Your task to perform on an android device: turn notification dots on Image 0: 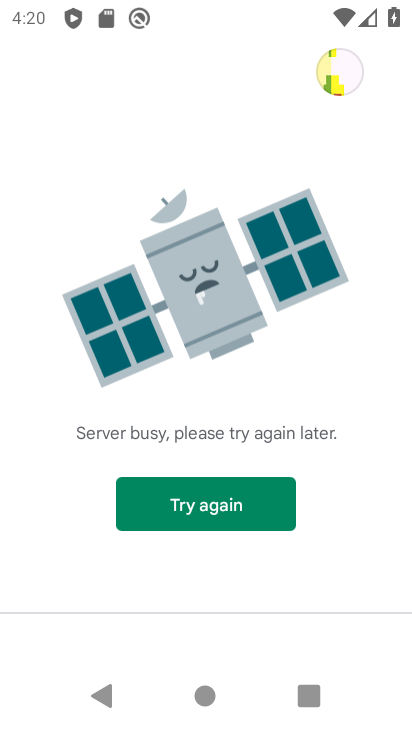
Step 0: press home button
Your task to perform on an android device: turn notification dots on Image 1: 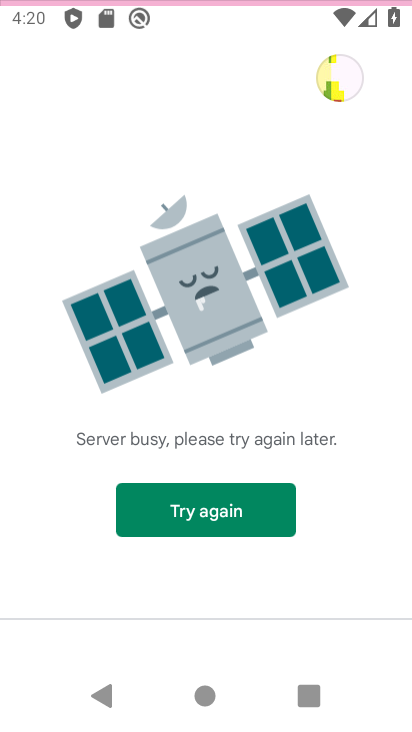
Step 1: press home button
Your task to perform on an android device: turn notification dots on Image 2: 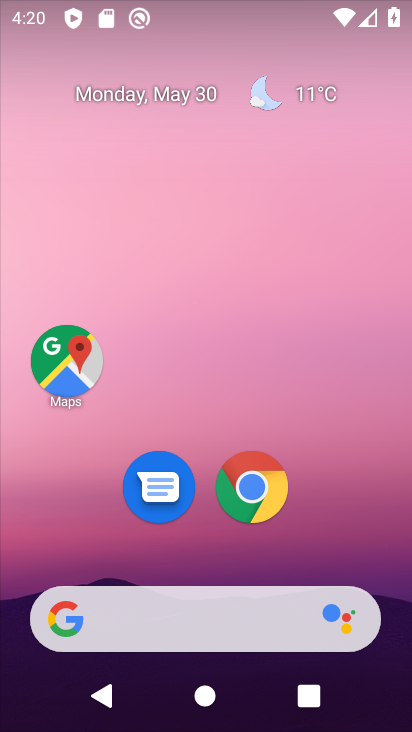
Step 2: drag from (387, 576) to (346, 193)
Your task to perform on an android device: turn notification dots on Image 3: 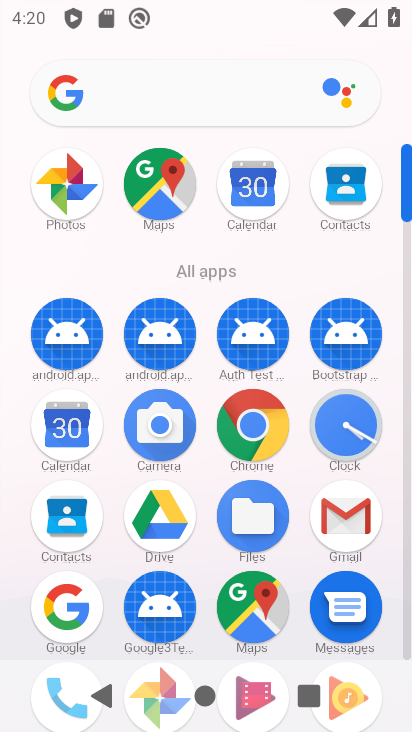
Step 3: click (406, 645)
Your task to perform on an android device: turn notification dots on Image 4: 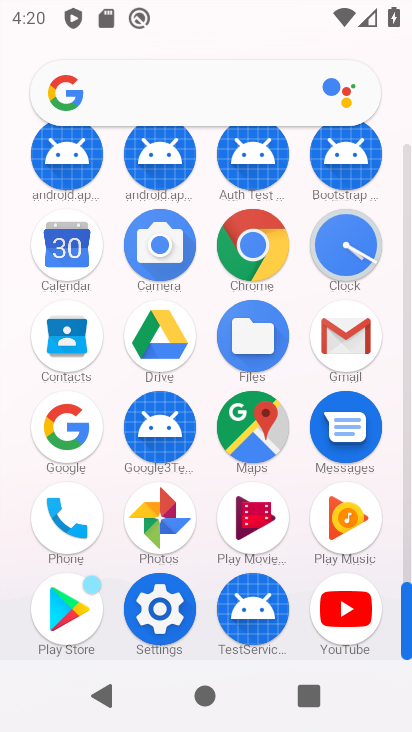
Step 4: click (406, 645)
Your task to perform on an android device: turn notification dots on Image 5: 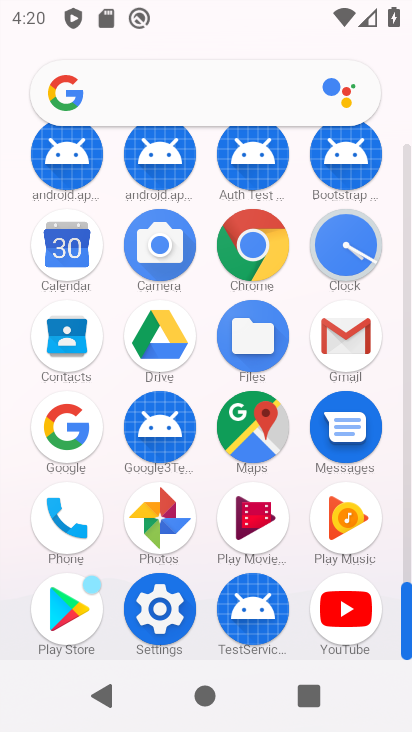
Step 5: click (161, 611)
Your task to perform on an android device: turn notification dots on Image 6: 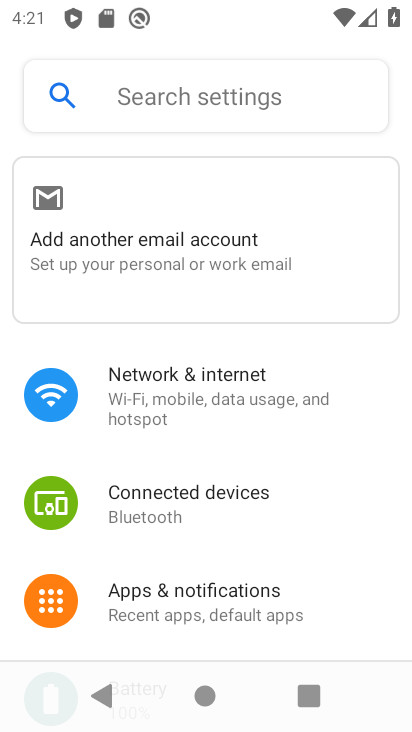
Step 6: drag from (318, 470) to (327, 277)
Your task to perform on an android device: turn notification dots on Image 7: 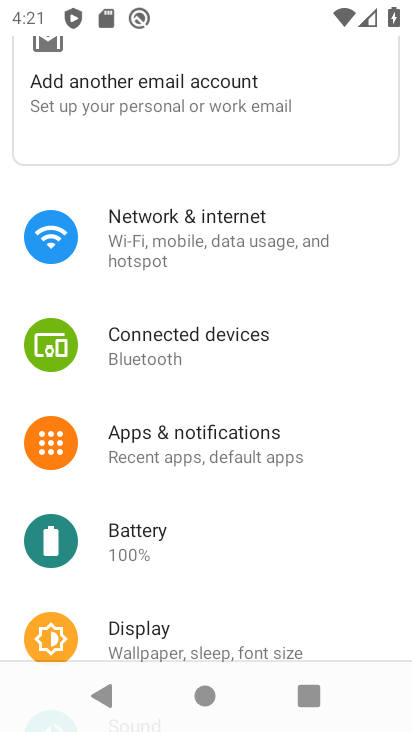
Step 7: click (165, 430)
Your task to perform on an android device: turn notification dots on Image 8: 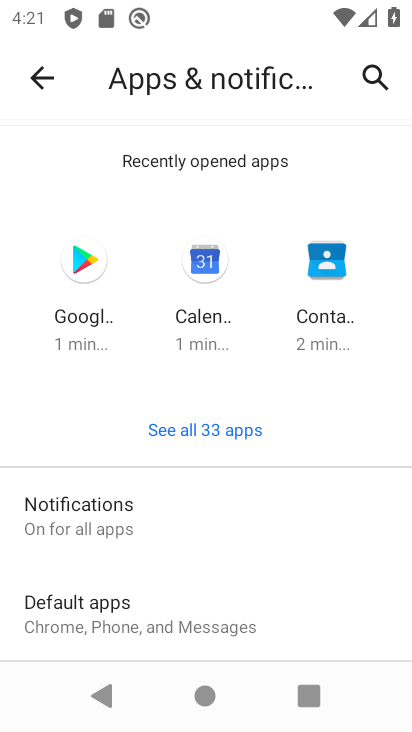
Step 8: click (98, 516)
Your task to perform on an android device: turn notification dots on Image 9: 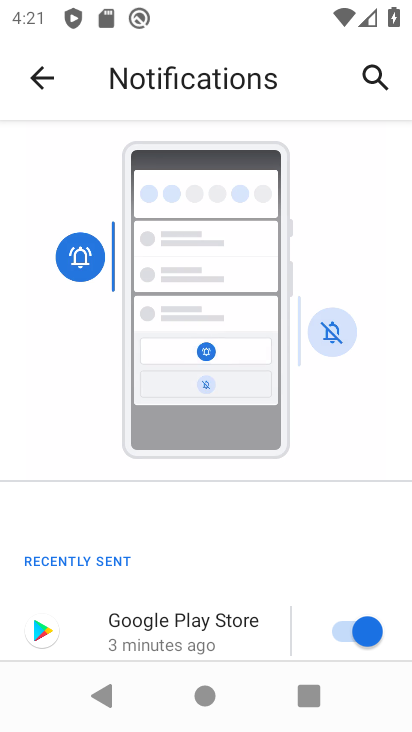
Step 9: drag from (270, 617) to (273, 160)
Your task to perform on an android device: turn notification dots on Image 10: 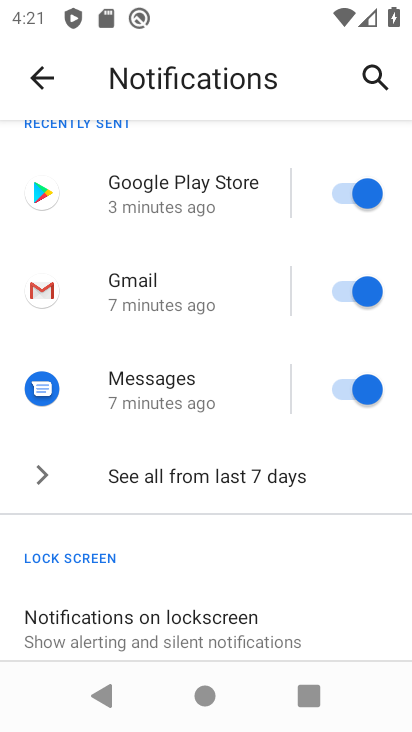
Step 10: drag from (290, 632) to (237, 178)
Your task to perform on an android device: turn notification dots on Image 11: 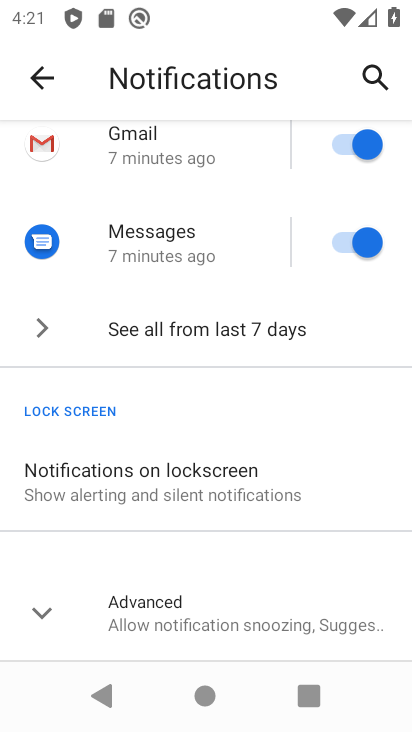
Step 11: drag from (286, 606) to (263, 252)
Your task to perform on an android device: turn notification dots on Image 12: 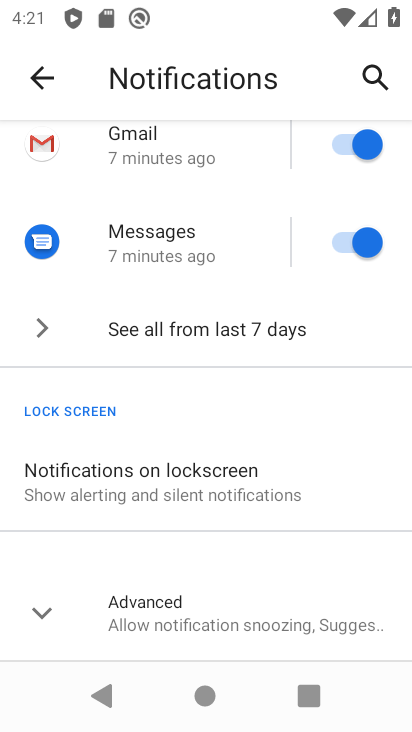
Step 12: click (36, 609)
Your task to perform on an android device: turn notification dots on Image 13: 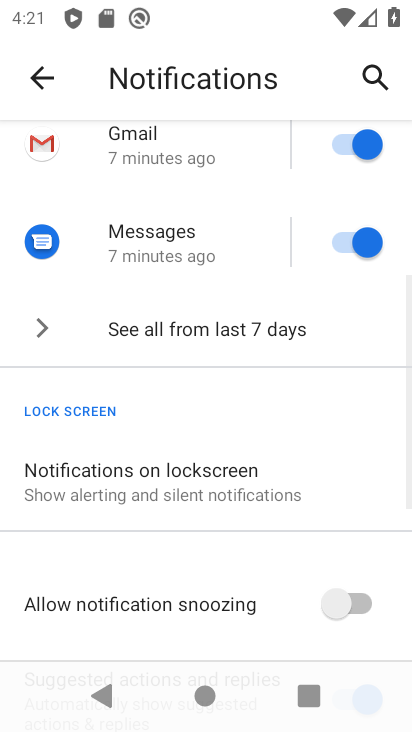
Step 13: task complete